Your task to perform on an android device: Go to Google maps Image 0: 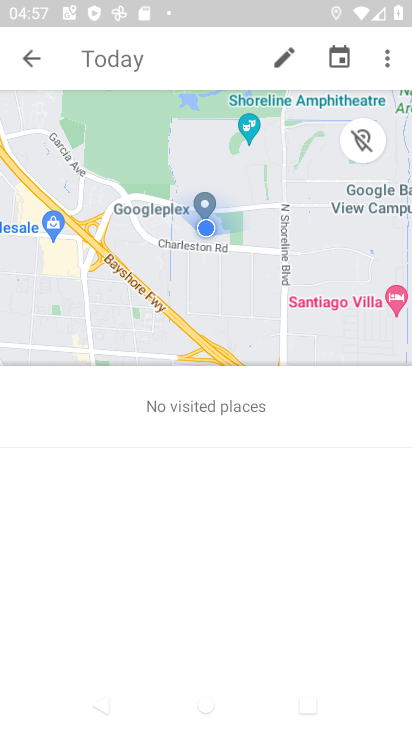
Step 0: task complete